Your task to perform on an android device: uninstall "Contacts" Image 0: 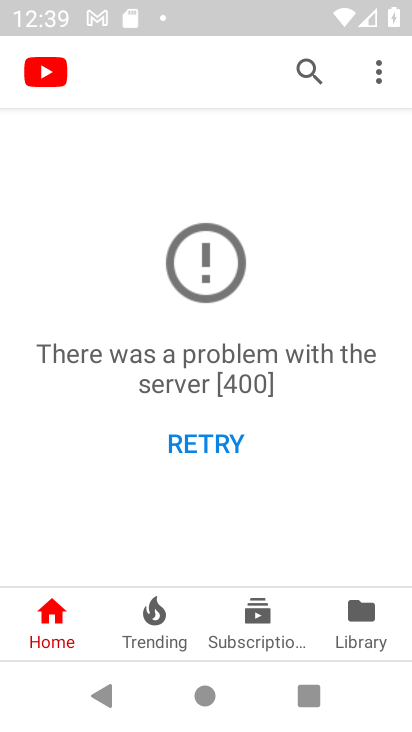
Step 0: press home button
Your task to perform on an android device: uninstall "Contacts" Image 1: 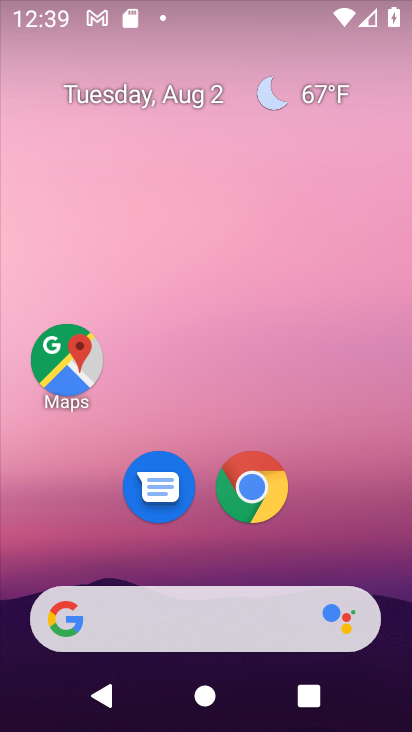
Step 1: drag from (188, 643) to (189, 174)
Your task to perform on an android device: uninstall "Contacts" Image 2: 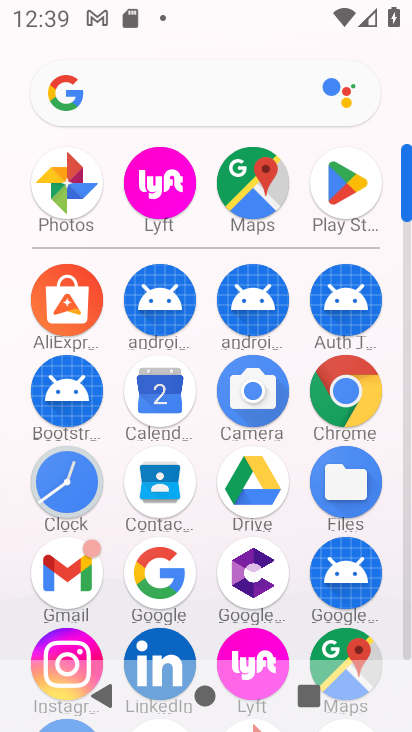
Step 2: click (340, 201)
Your task to perform on an android device: uninstall "Contacts" Image 3: 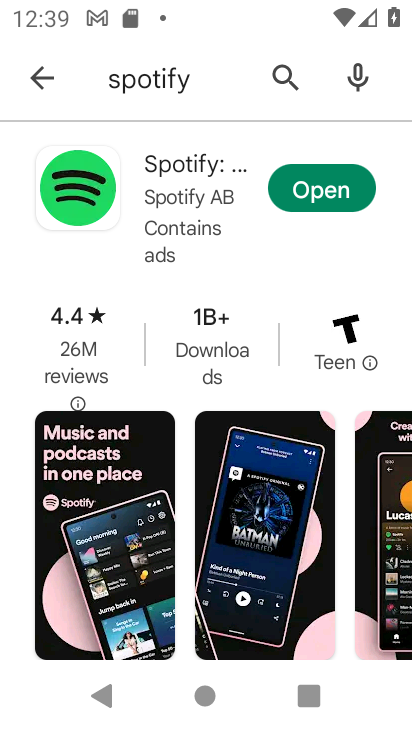
Step 3: click (34, 87)
Your task to perform on an android device: uninstall "Contacts" Image 4: 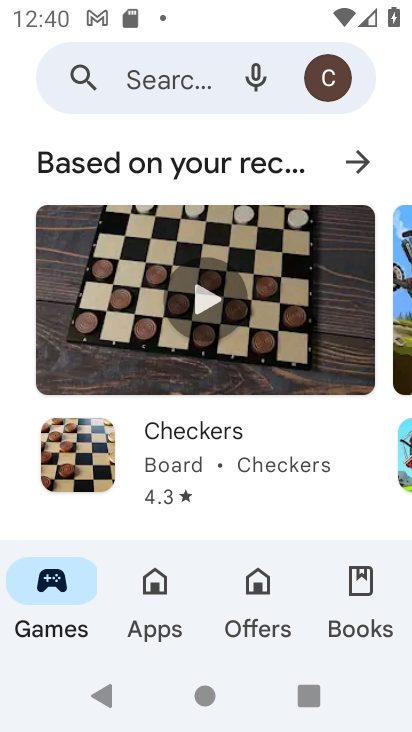
Step 4: click (83, 77)
Your task to perform on an android device: uninstall "Contacts" Image 5: 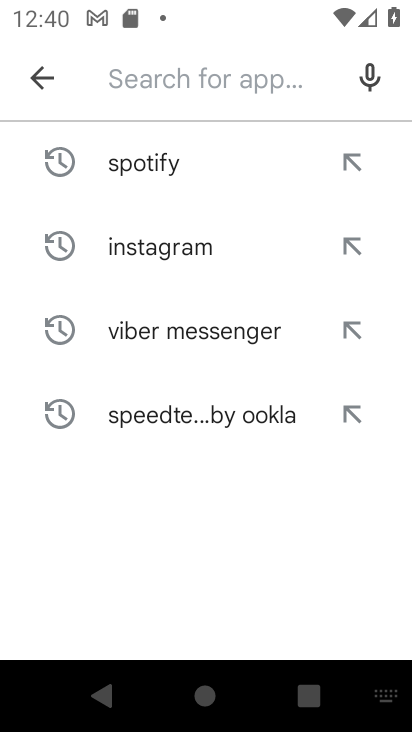
Step 5: type "Contacts"
Your task to perform on an android device: uninstall "Contacts" Image 6: 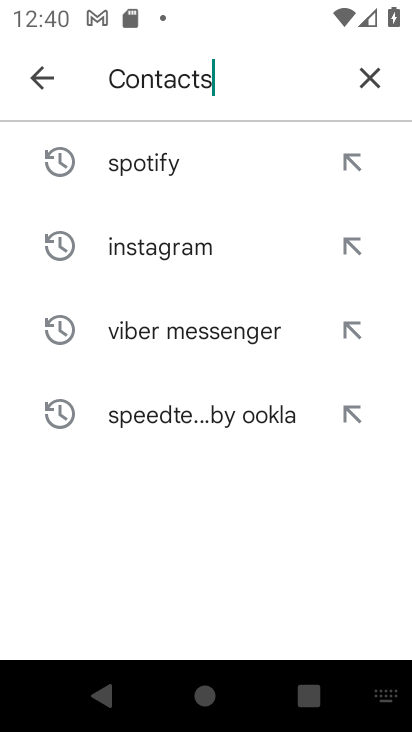
Step 6: type ""
Your task to perform on an android device: uninstall "Contacts" Image 7: 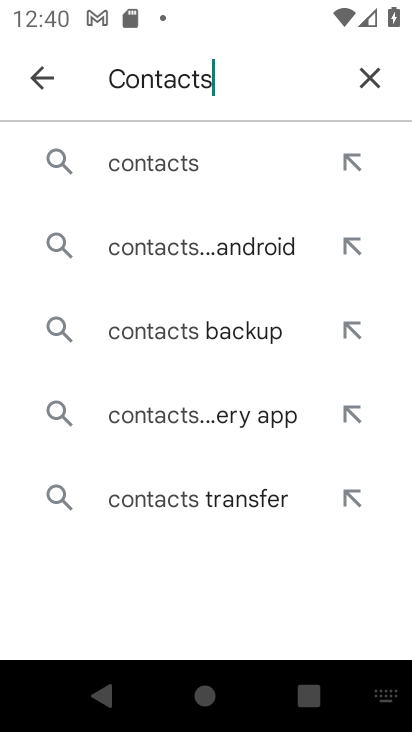
Step 7: click (171, 158)
Your task to perform on an android device: uninstall "Contacts" Image 8: 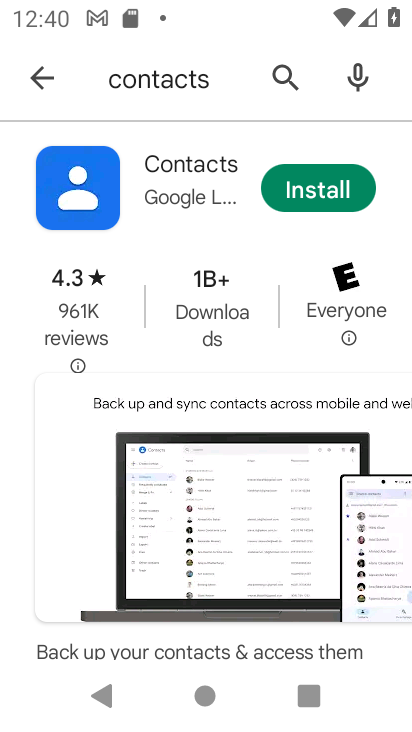
Step 8: task complete